Your task to perform on an android device: find which apps use the phone's location Image 0: 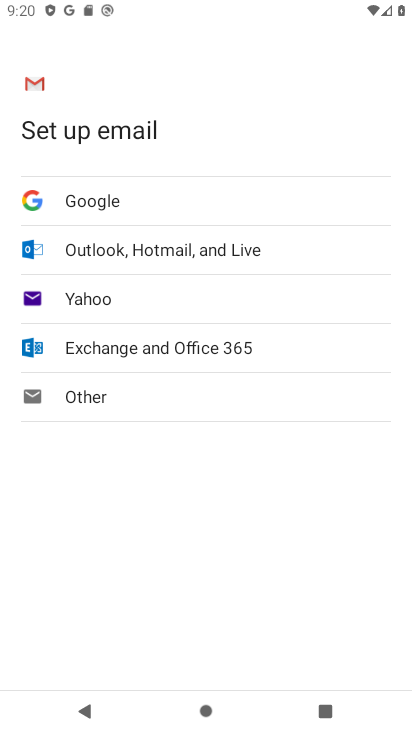
Step 0: press home button
Your task to perform on an android device: find which apps use the phone's location Image 1: 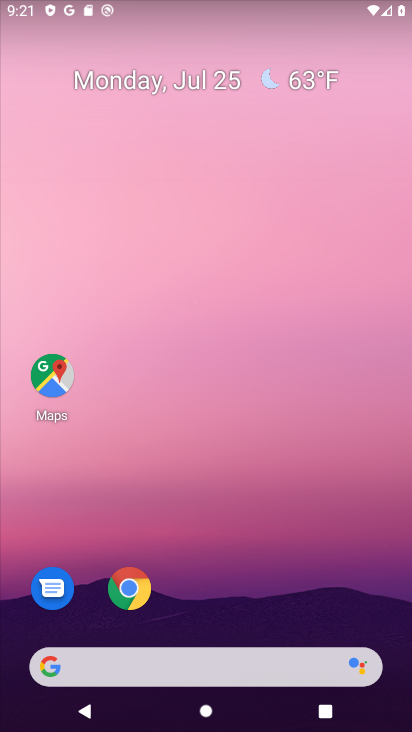
Step 1: drag from (234, 555) to (264, 105)
Your task to perform on an android device: find which apps use the phone's location Image 2: 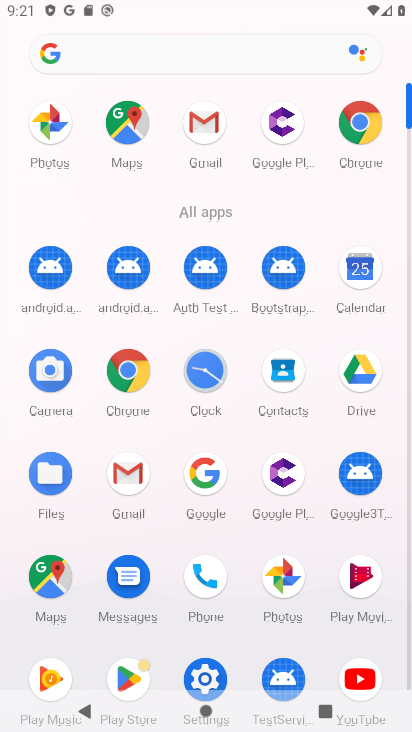
Step 2: click (196, 582)
Your task to perform on an android device: find which apps use the phone's location Image 3: 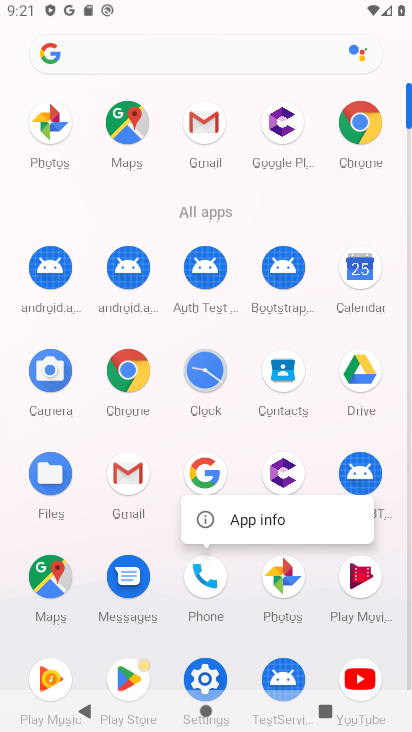
Step 3: click (244, 514)
Your task to perform on an android device: find which apps use the phone's location Image 4: 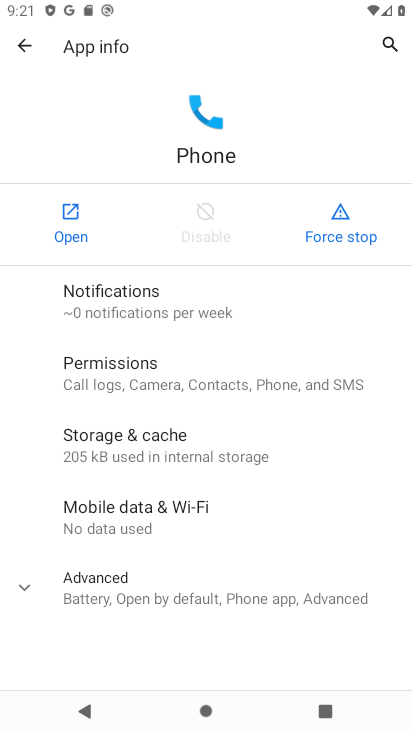
Step 4: click (142, 296)
Your task to perform on an android device: find which apps use the phone's location Image 5: 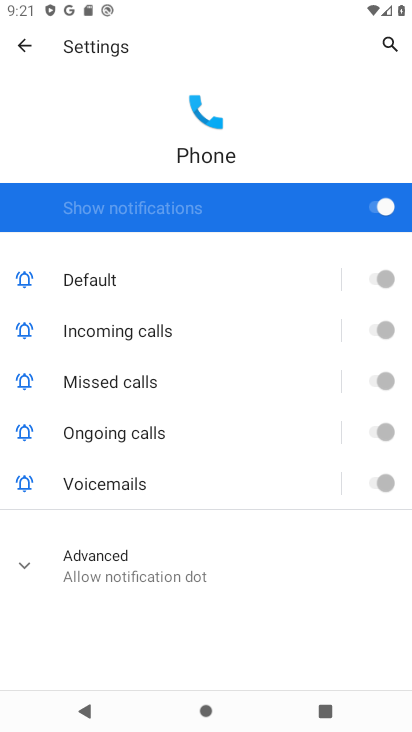
Step 5: click (156, 569)
Your task to perform on an android device: find which apps use the phone's location Image 6: 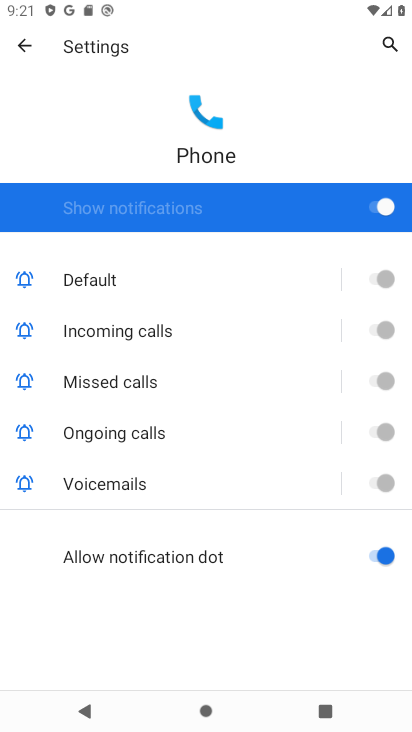
Step 6: drag from (242, 564) to (300, 290)
Your task to perform on an android device: find which apps use the phone's location Image 7: 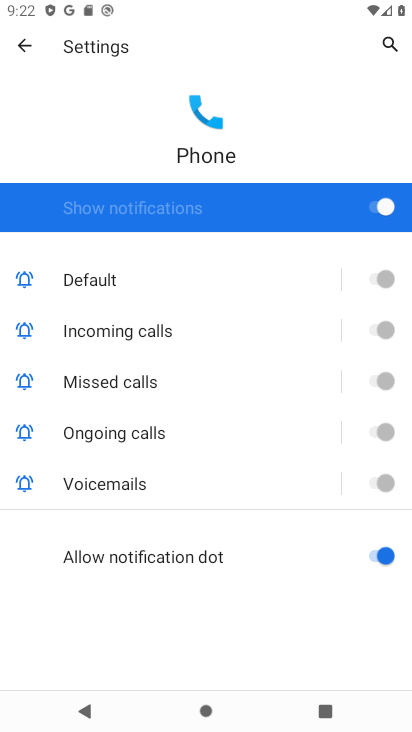
Step 7: click (14, 43)
Your task to perform on an android device: find which apps use the phone's location Image 8: 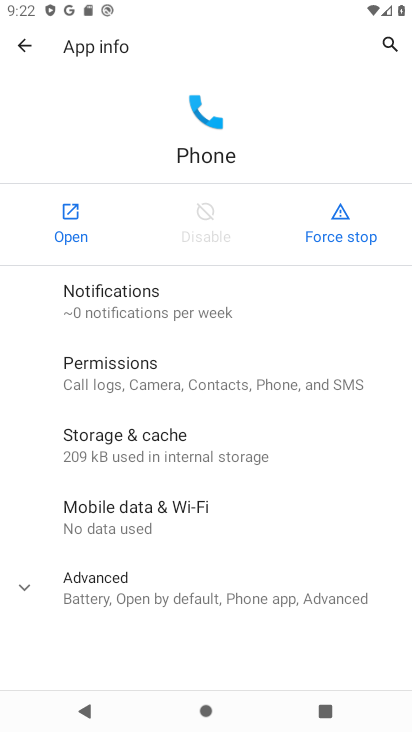
Step 8: click (100, 359)
Your task to perform on an android device: find which apps use the phone's location Image 9: 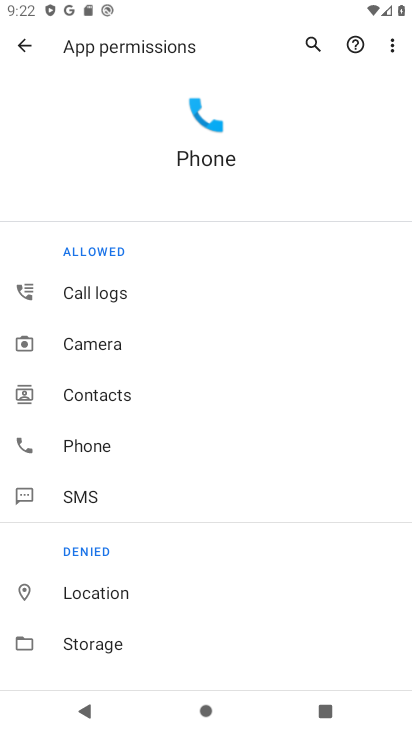
Step 9: click (93, 584)
Your task to perform on an android device: find which apps use the phone's location Image 10: 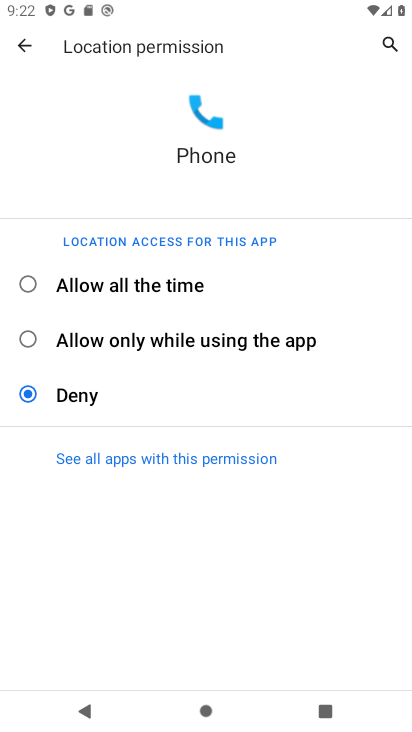
Step 10: task complete